Your task to perform on an android device: Search for Italian restaurants on Maps Image 0: 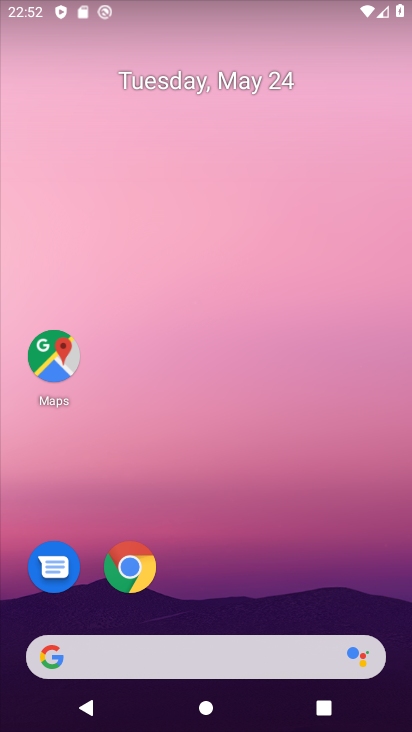
Step 0: click (56, 362)
Your task to perform on an android device: Search for Italian restaurants on Maps Image 1: 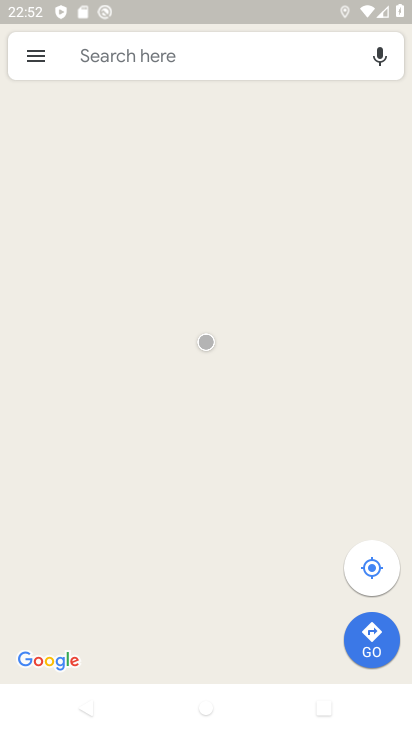
Step 1: click (254, 55)
Your task to perform on an android device: Search for Italian restaurants on Maps Image 2: 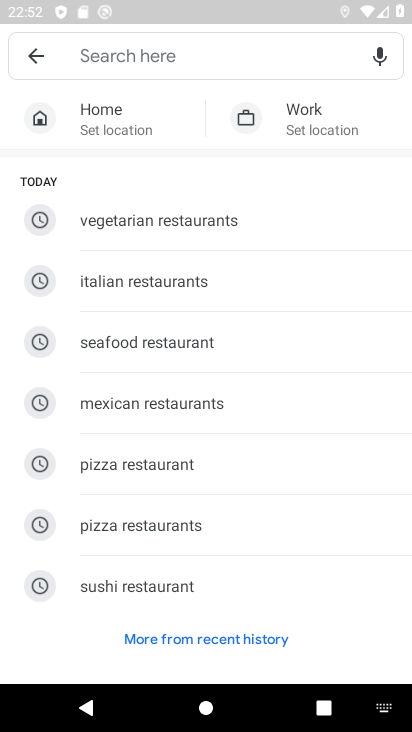
Step 2: click (147, 283)
Your task to perform on an android device: Search for Italian restaurants on Maps Image 3: 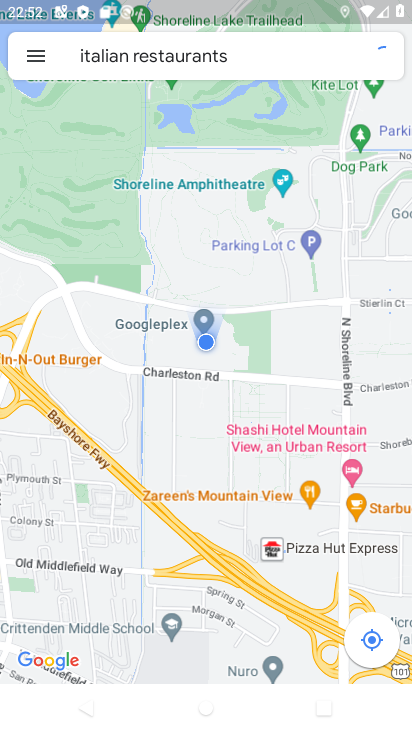
Step 3: task complete